Your task to perform on an android device: turn on showing notifications on the lock screen Image 0: 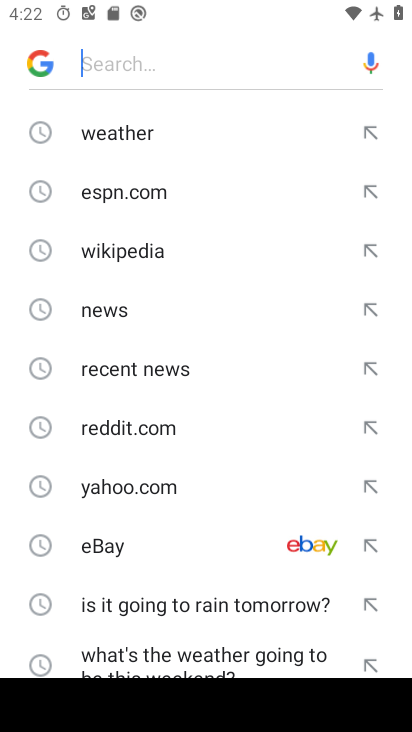
Step 0: press back button
Your task to perform on an android device: turn on showing notifications on the lock screen Image 1: 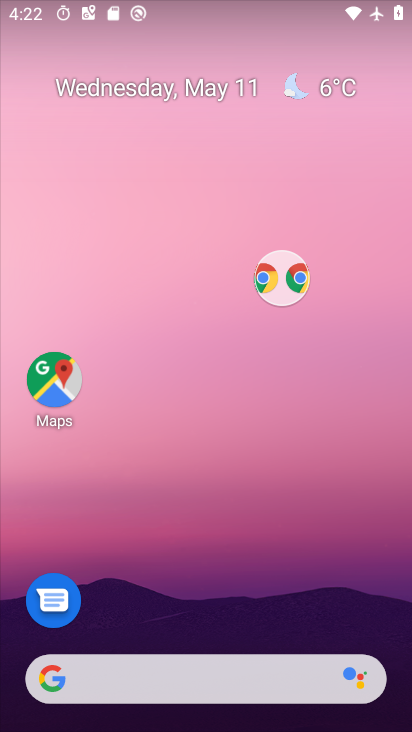
Step 1: drag from (390, 652) to (82, 8)
Your task to perform on an android device: turn on showing notifications on the lock screen Image 2: 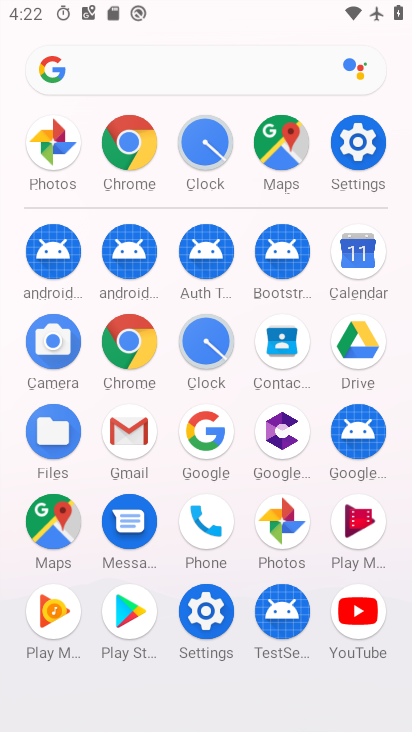
Step 2: click (344, 154)
Your task to perform on an android device: turn on showing notifications on the lock screen Image 3: 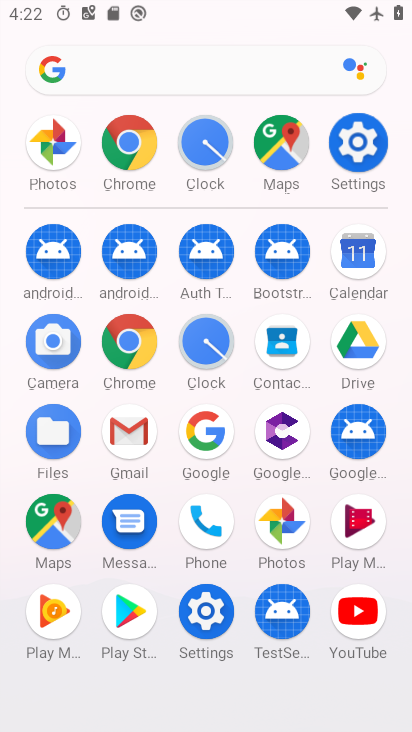
Step 3: click (345, 154)
Your task to perform on an android device: turn on showing notifications on the lock screen Image 4: 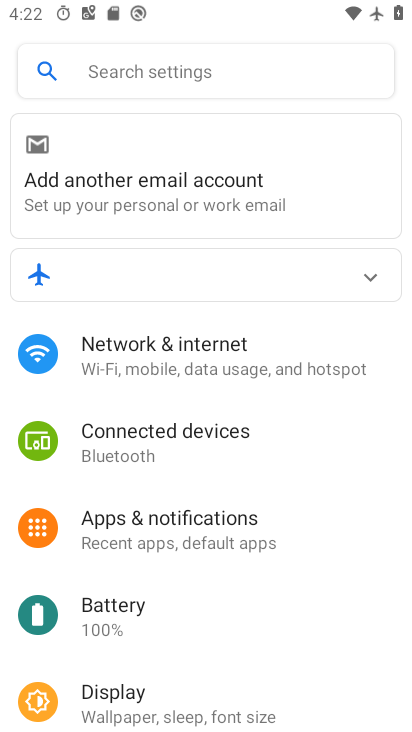
Step 4: click (163, 521)
Your task to perform on an android device: turn on showing notifications on the lock screen Image 5: 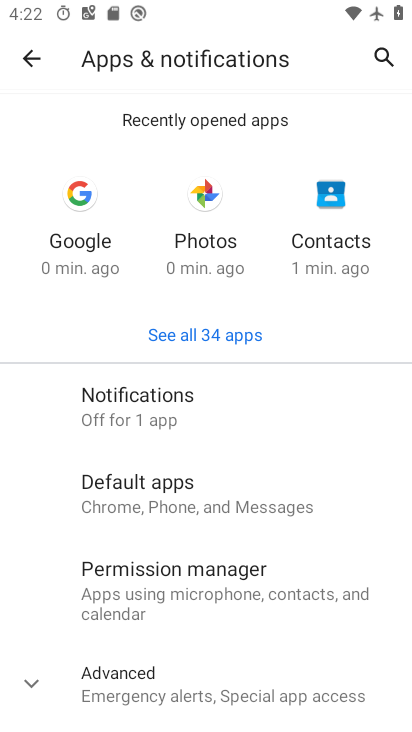
Step 5: click (138, 396)
Your task to perform on an android device: turn on showing notifications on the lock screen Image 6: 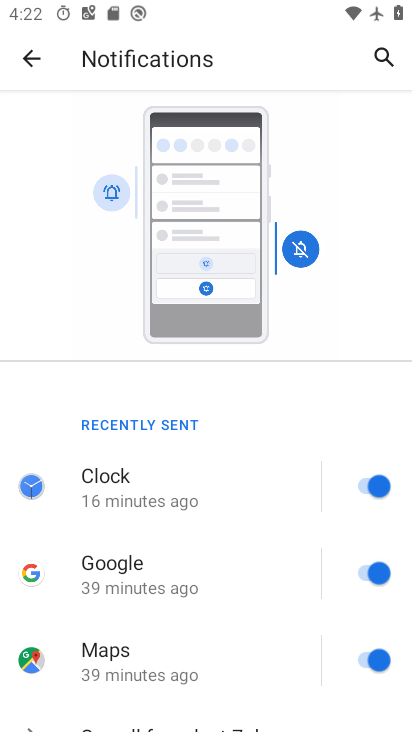
Step 6: drag from (188, 498) to (124, 65)
Your task to perform on an android device: turn on showing notifications on the lock screen Image 7: 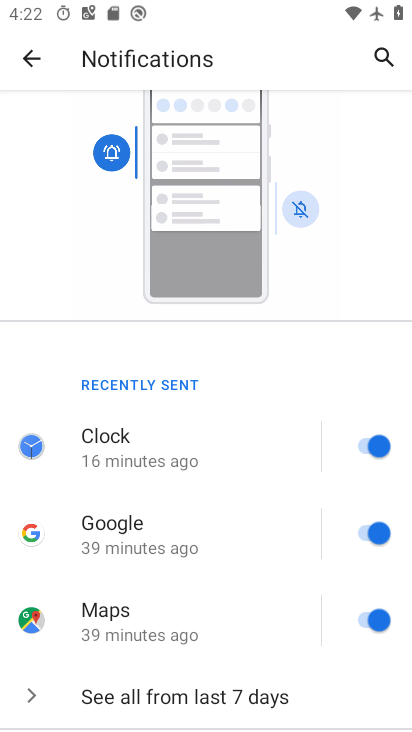
Step 7: drag from (155, 469) to (150, 59)
Your task to perform on an android device: turn on showing notifications on the lock screen Image 8: 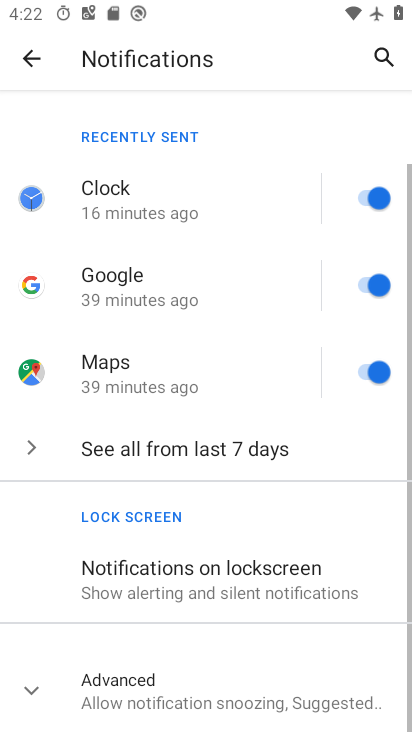
Step 8: drag from (159, 541) to (73, 183)
Your task to perform on an android device: turn on showing notifications on the lock screen Image 9: 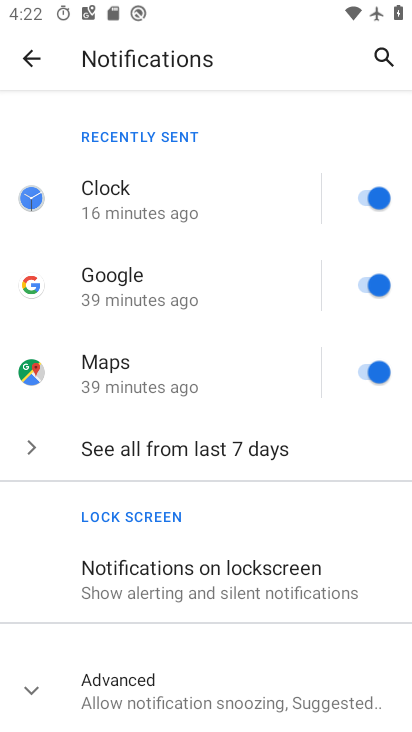
Step 9: click (213, 581)
Your task to perform on an android device: turn on showing notifications on the lock screen Image 10: 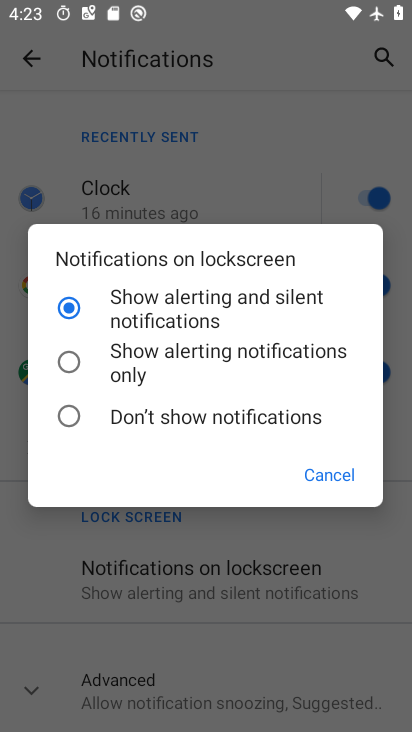
Step 10: click (323, 472)
Your task to perform on an android device: turn on showing notifications on the lock screen Image 11: 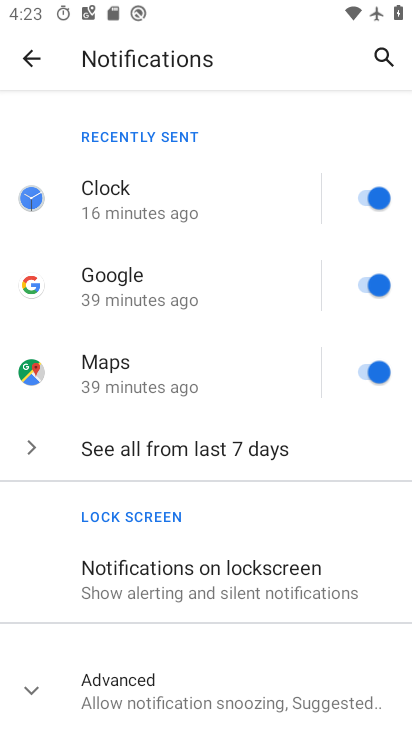
Step 11: task complete